Your task to perform on an android device: clear history in the chrome app Image 0: 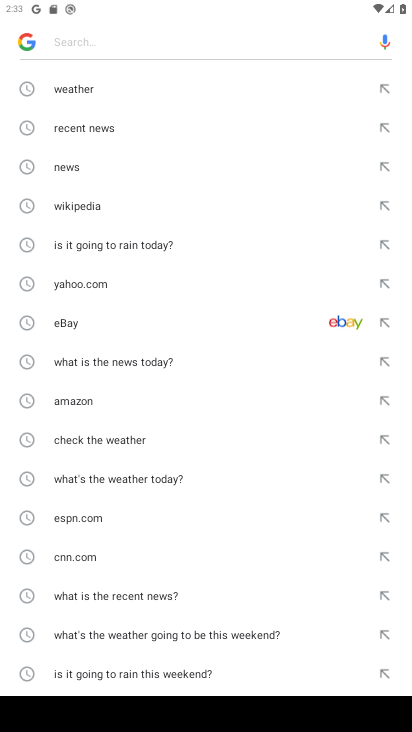
Step 0: press home button
Your task to perform on an android device: clear history in the chrome app Image 1: 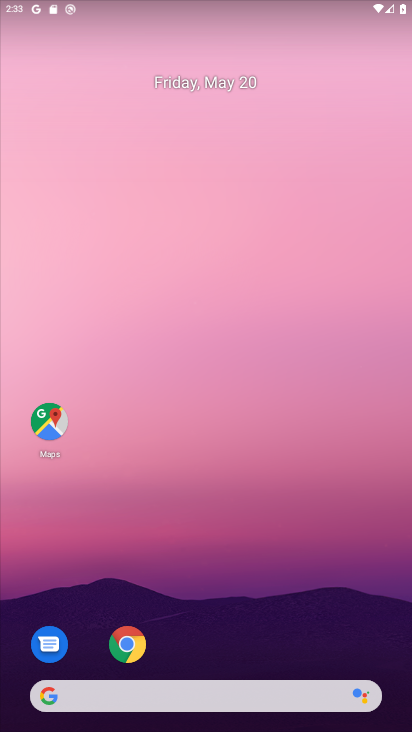
Step 1: click (125, 654)
Your task to perform on an android device: clear history in the chrome app Image 2: 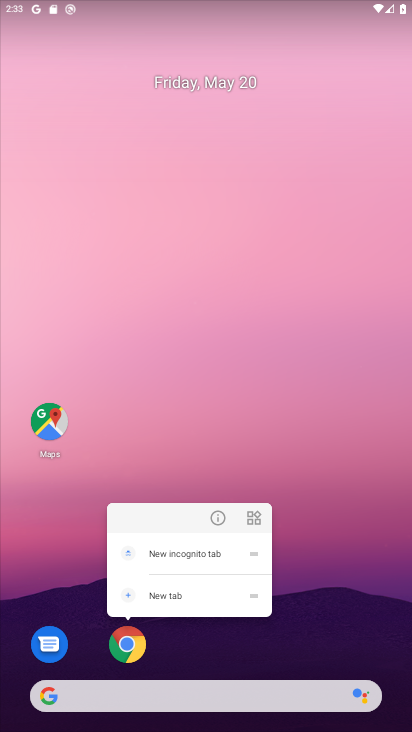
Step 2: click (128, 646)
Your task to perform on an android device: clear history in the chrome app Image 3: 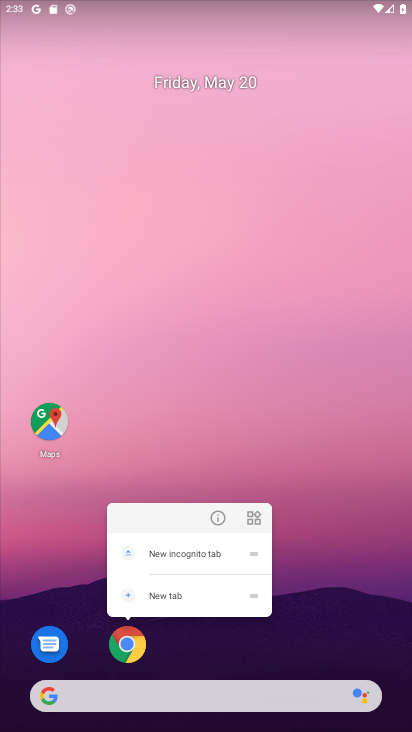
Step 3: click (129, 645)
Your task to perform on an android device: clear history in the chrome app Image 4: 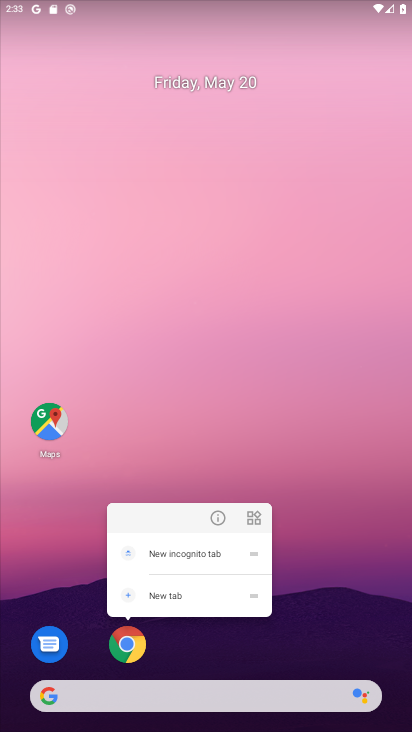
Step 4: click (129, 644)
Your task to perform on an android device: clear history in the chrome app Image 5: 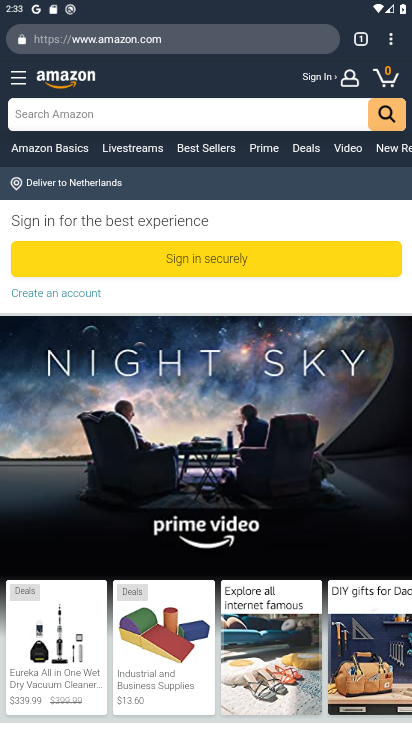
Step 5: drag from (393, 42) to (292, 271)
Your task to perform on an android device: clear history in the chrome app Image 6: 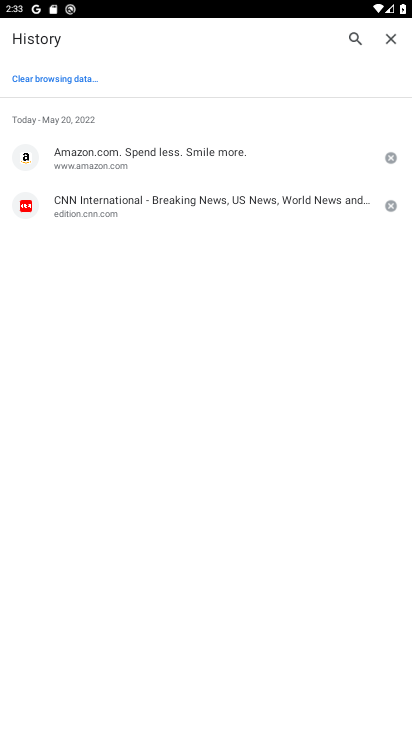
Step 6: click (52, 80)
Your task to perform on an android device: clear history in the chrome app Image 7: 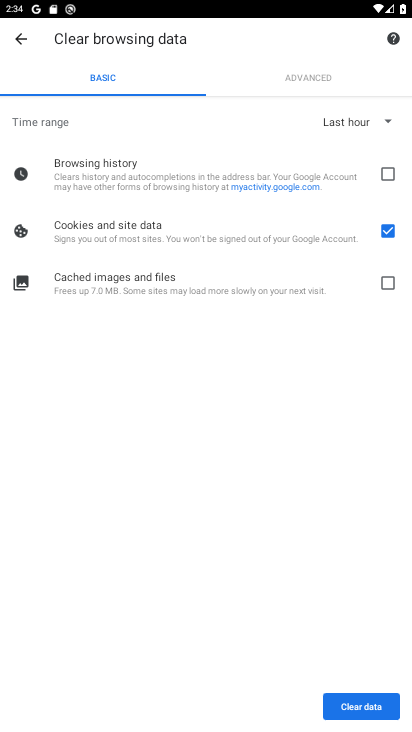
Step 7: click (388, 241)
Your task to perform on an android device: clear history in the chrome app Image 8: 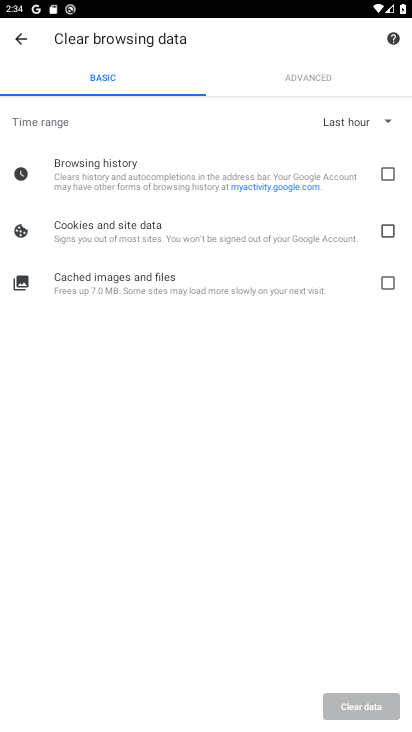
Step 8: click (388, 180)
Your task to perform on an android device: clear history in the chrome app Image 9: 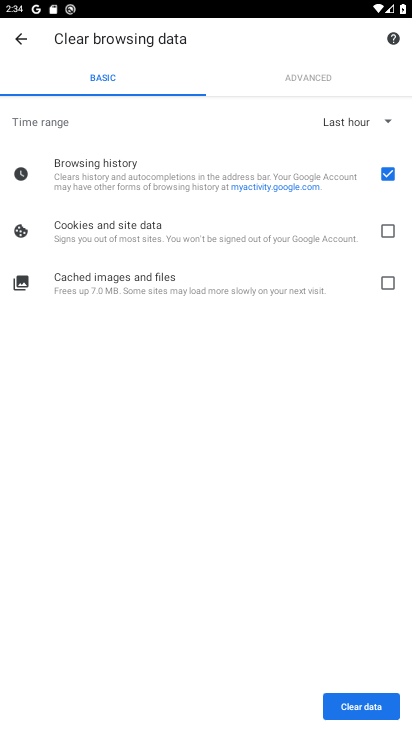
Step 9: click (365, 712)
Your task to perform on an android device: clear history in the chrome app Image 10: 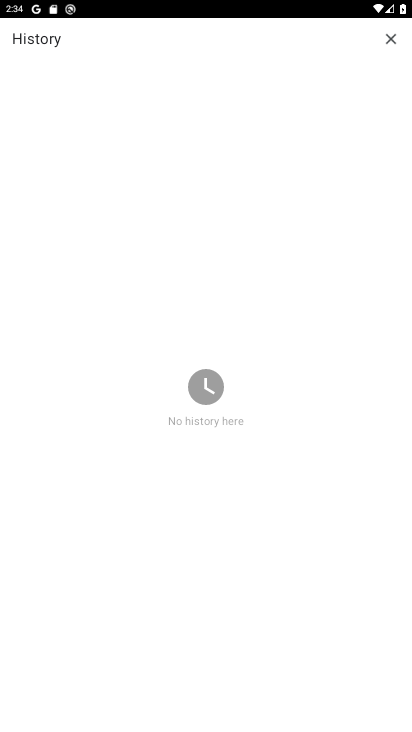
Step 10: task complete